Your task to perform on an android device: turn off airplane mode Image 0: 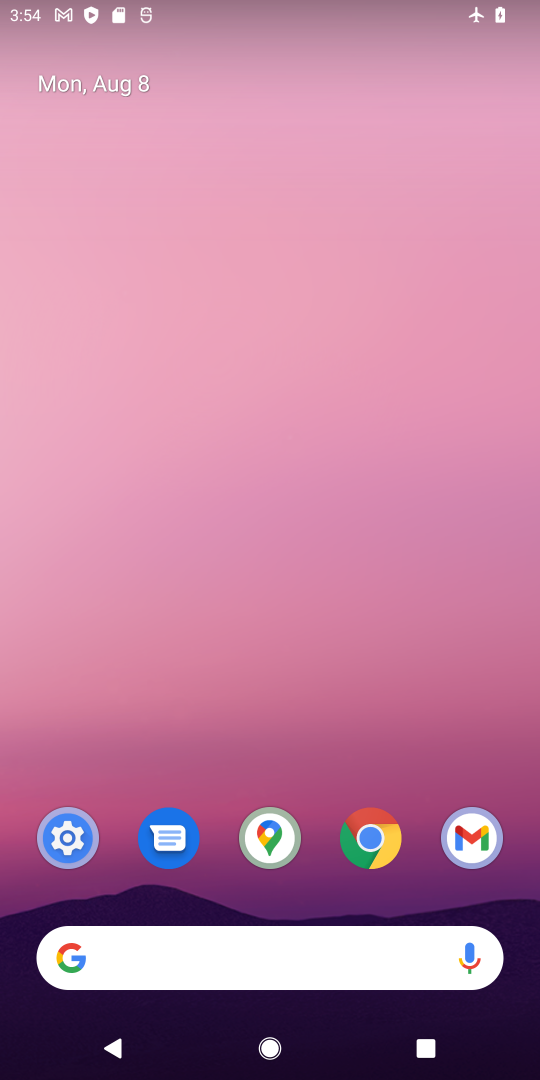
Step 0: click (63, 840)
Your task to perform on an android device: turn off airplane mode Image 1: 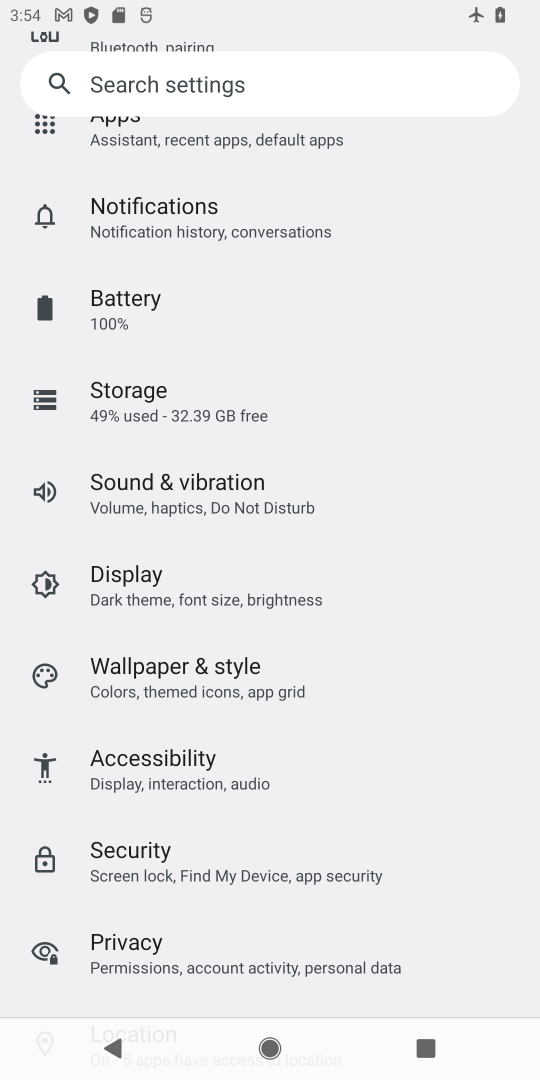
Step 1: drag from (291, 367) to (284, 558)
Your task to perform on an android device: turn off airplane mode Image 2: 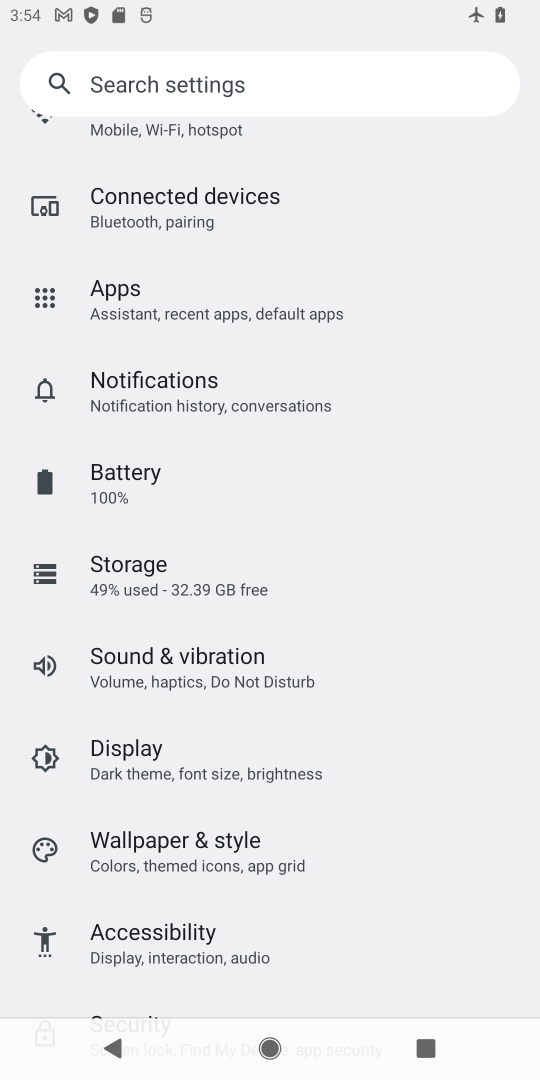
Step 2: drag from (251, 277) to (251, 425)
Your task to perform on an android device: turn off airplane mode Image 3: 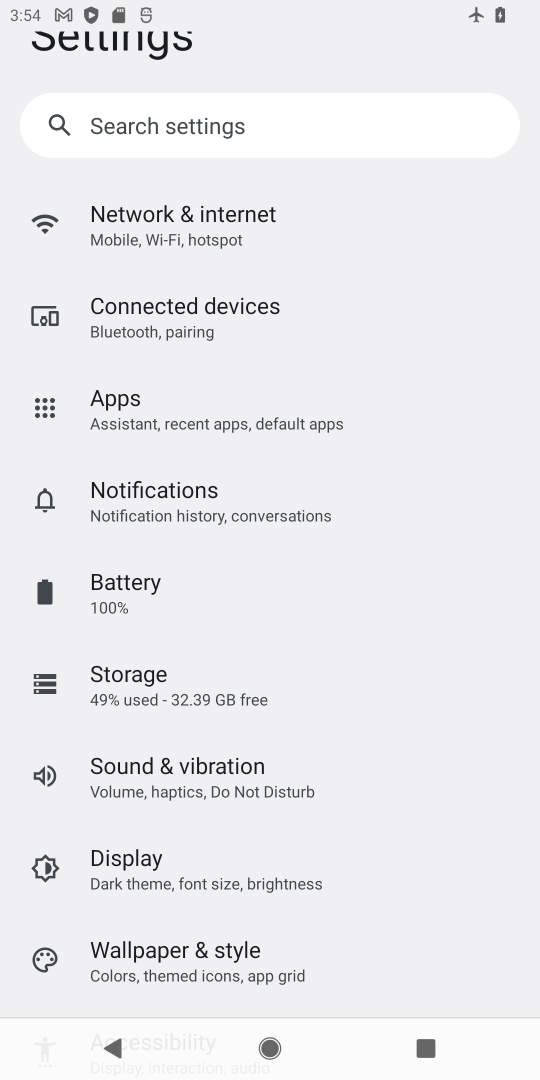
Step 3: click (221, 227)
Your task to perform on an android device: turn off airplane mode Image 4: 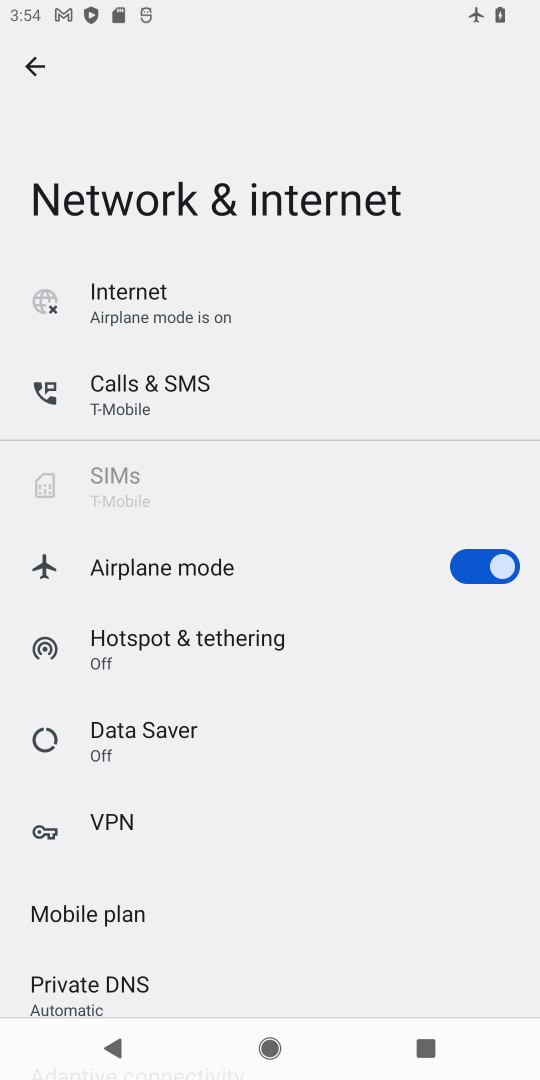
Step 4: click (461, 571)
Your task to perform on an android device: turn off airplane mode Image 5: 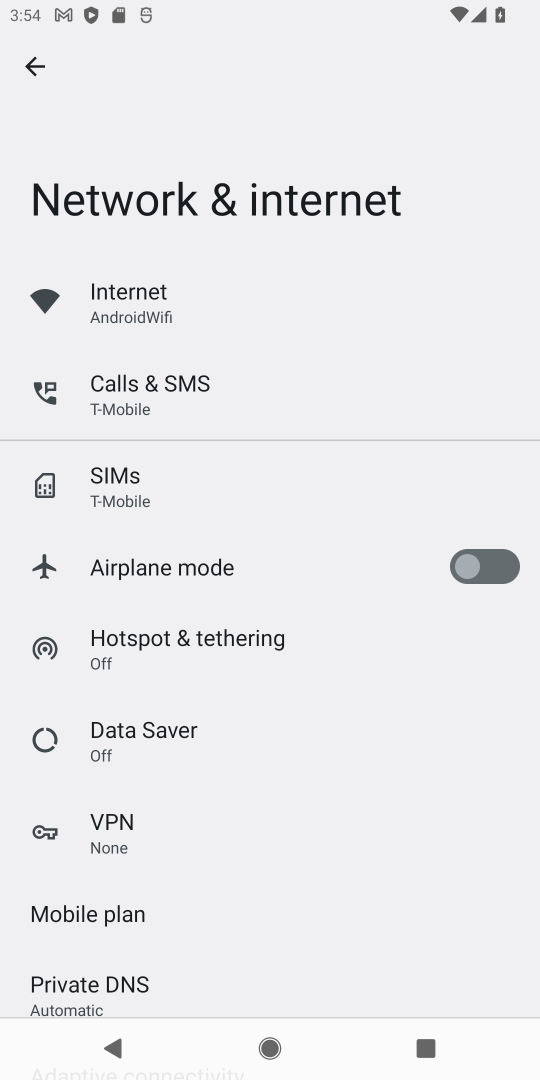
Step 5: task complete